Your task to perform on an android device: delete browsing data in the chrome app Image 0: 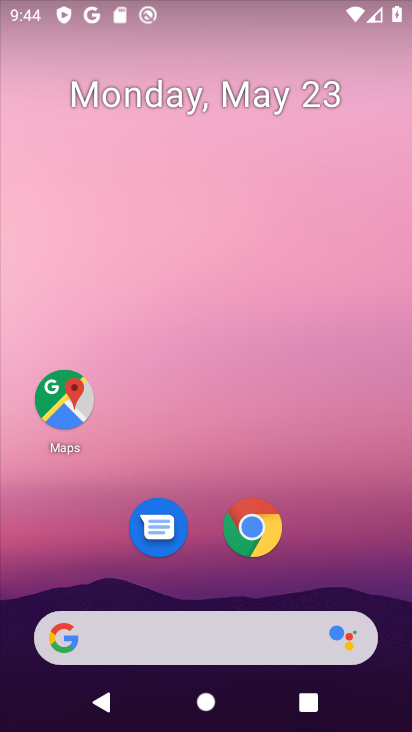
Step 0: click (259, 512)
Your task to perform on an android device: delete browsing data in the chrome app Image 1: 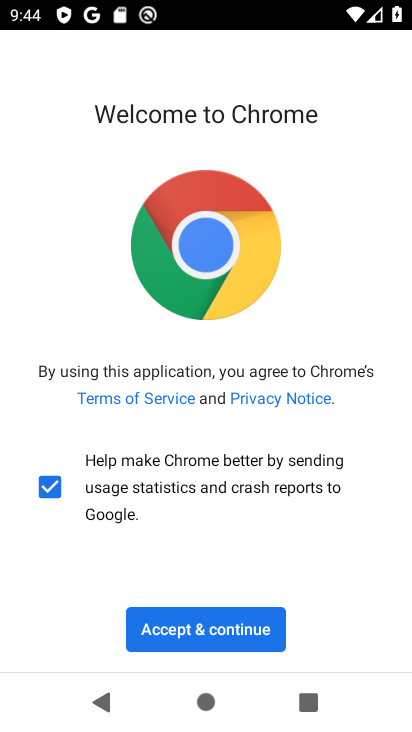
Step 1: click (262, 623)
Your task to perform on an android device: delete browsing data in the chrome app Image 2: 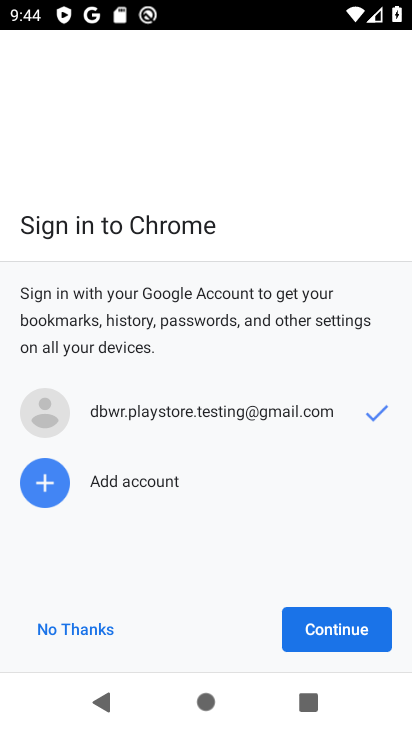
Step 2: click (350, 609)
Your task to perform on an android device: delete browsing data in the chrome app Image 3: 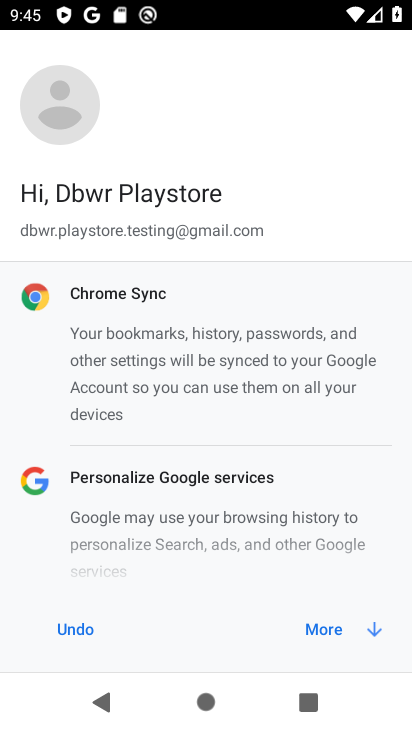
Step 3: click (375, 628)
Your task to perform on an android device: delete browsing data in the chrome app Image 4: 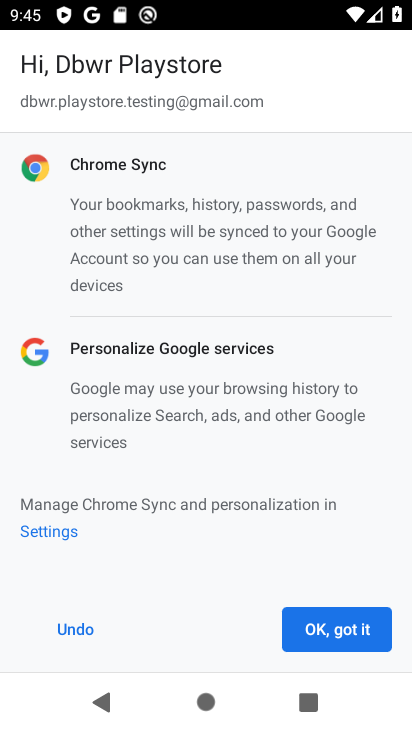
Step 4: click (375, 628)
Your task to perform on an android device: delete browsing data in the chrome app Image 5: 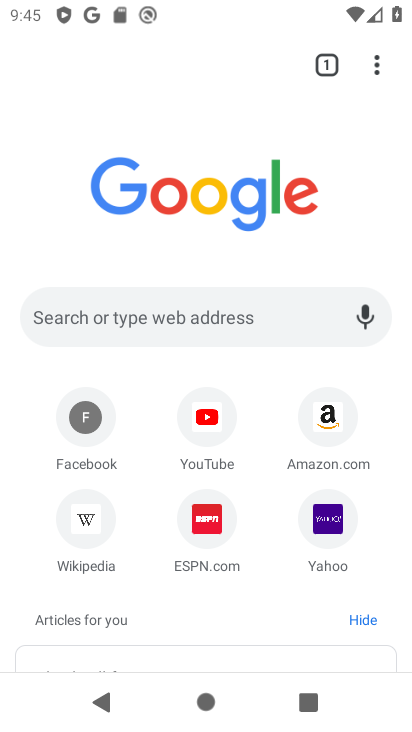
Step 5: click (372, 68)
Your task to perform on an android device: delete browsing data in the chrome app Image 6: 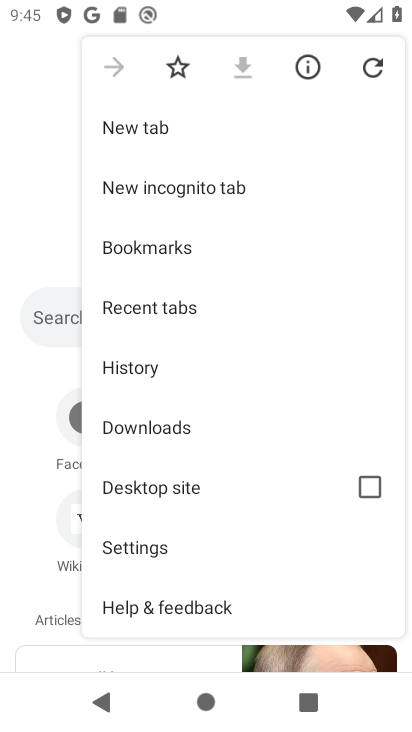
Step 6: click (123, 362)
Your task to perform on an android device: delete browsing data in the chrome app Image 7: 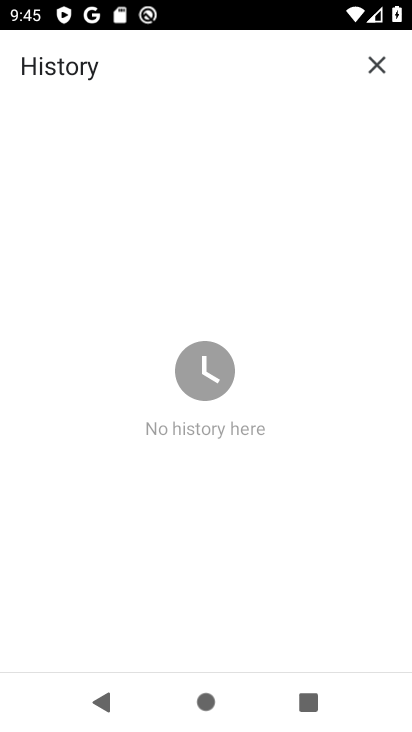
Step 7: task complete